Your task to perform on an android device: Go to Wikipedia Image 0: 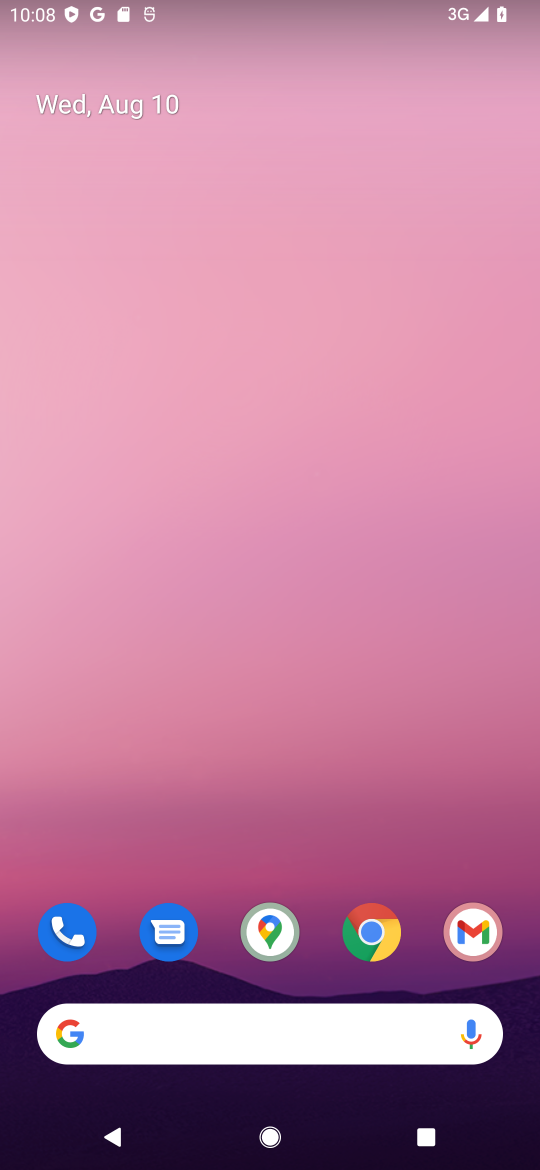
Step 0: click (371, 930)
Your task to perform on an android device: Go to Wikipedia Image 1: 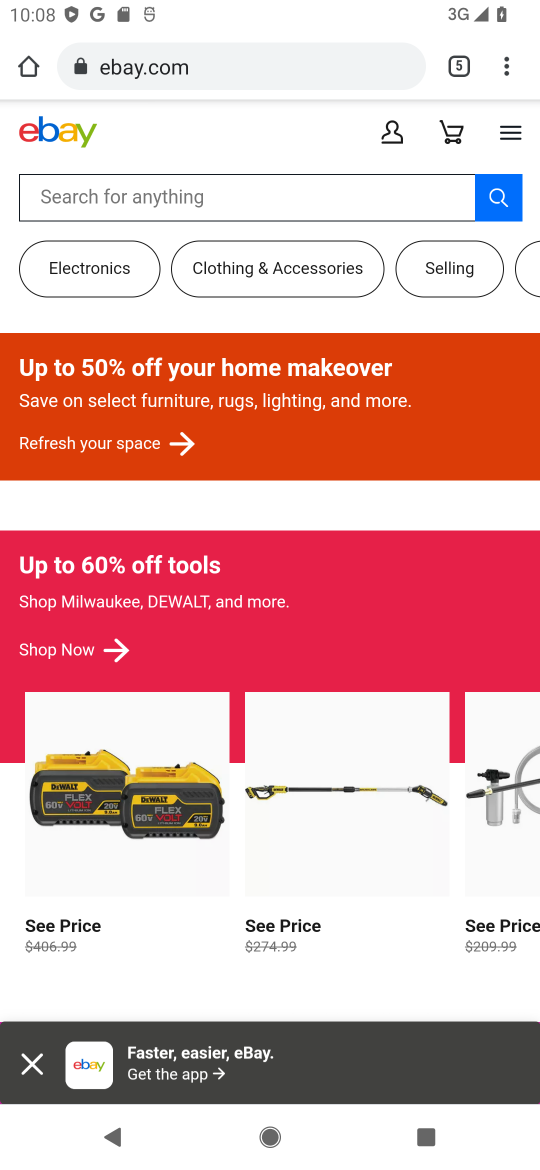
Step 1: click (489, 59)
Your task to perform on an android device: Go to Wikipedia Image 2: 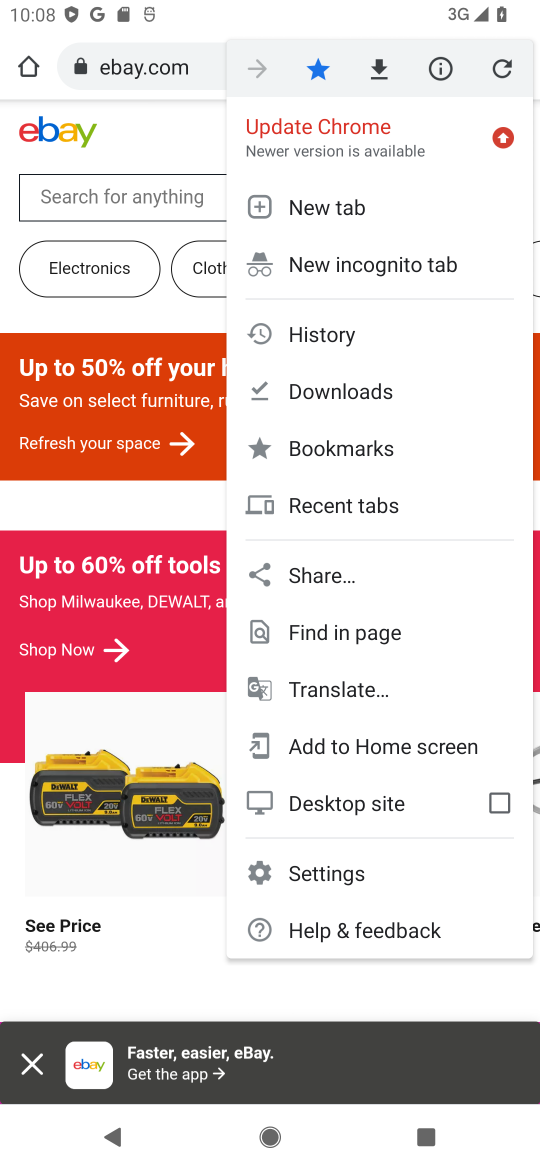
Step 2: click (324, 196)
Your task to perform on an android device: Go to Wikipedia Image 3: 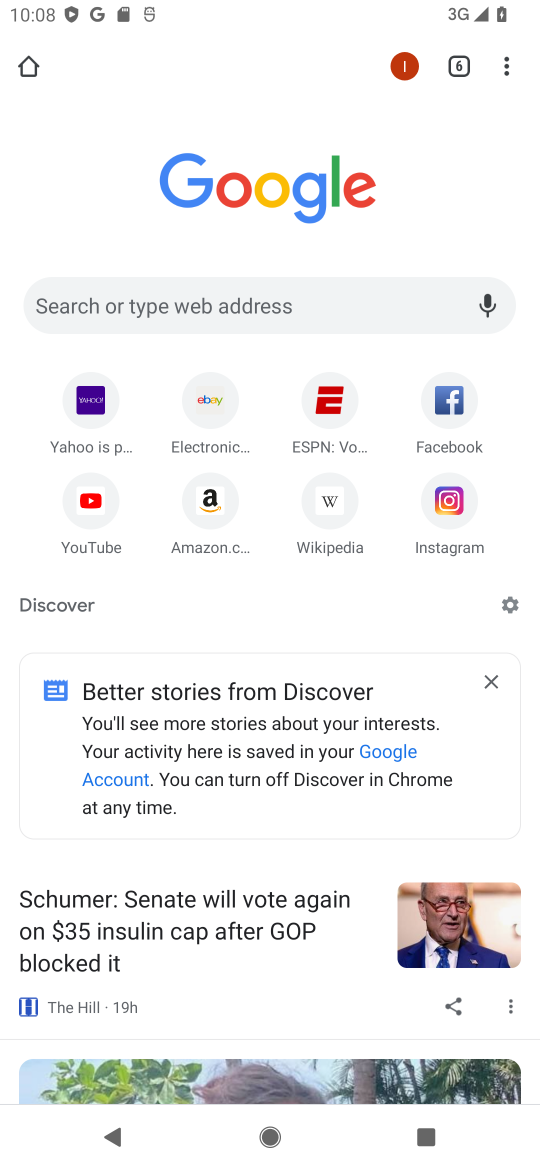
Step 3: click (318, 487)
Your task to perform on an android device: Go to Wikipedia Image 4: 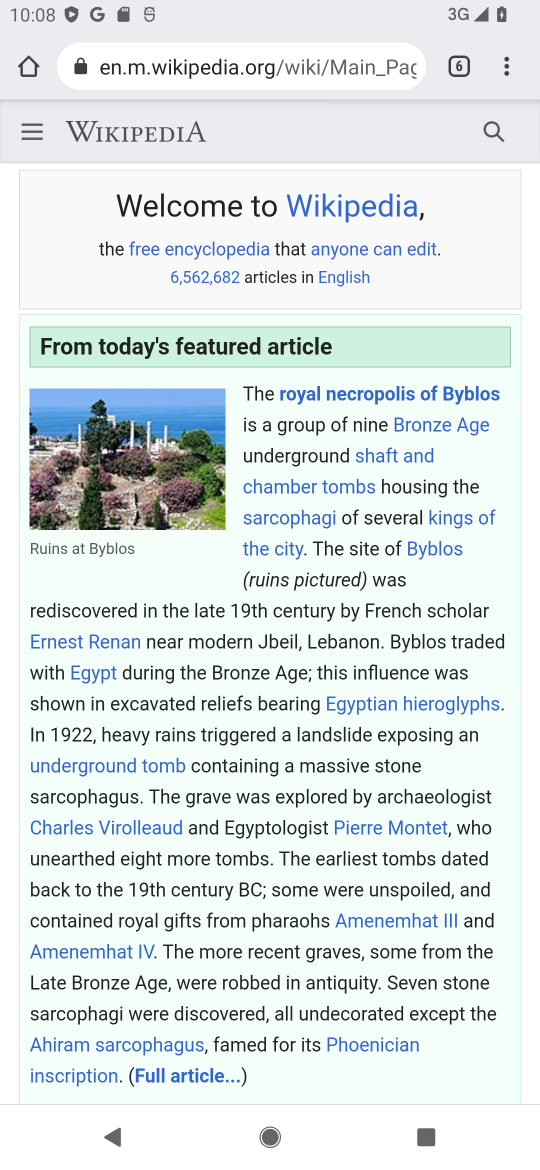
Step 4: task complete